Your task to perform on an android device: open chrome and create a bookmark for the current page Image 0: 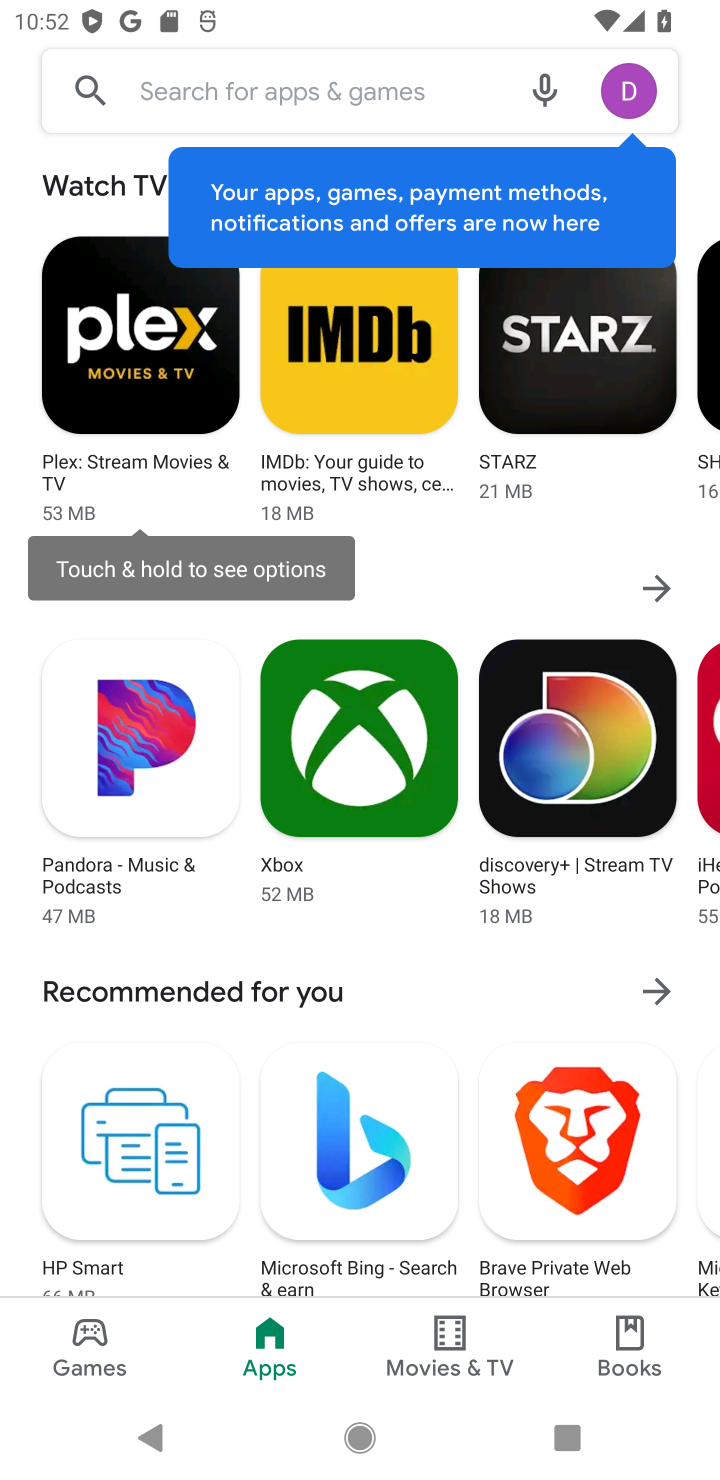
Step 0: press home button
Your task to perform on an android device: open chrome and create a bookmark for the current page Image 1: 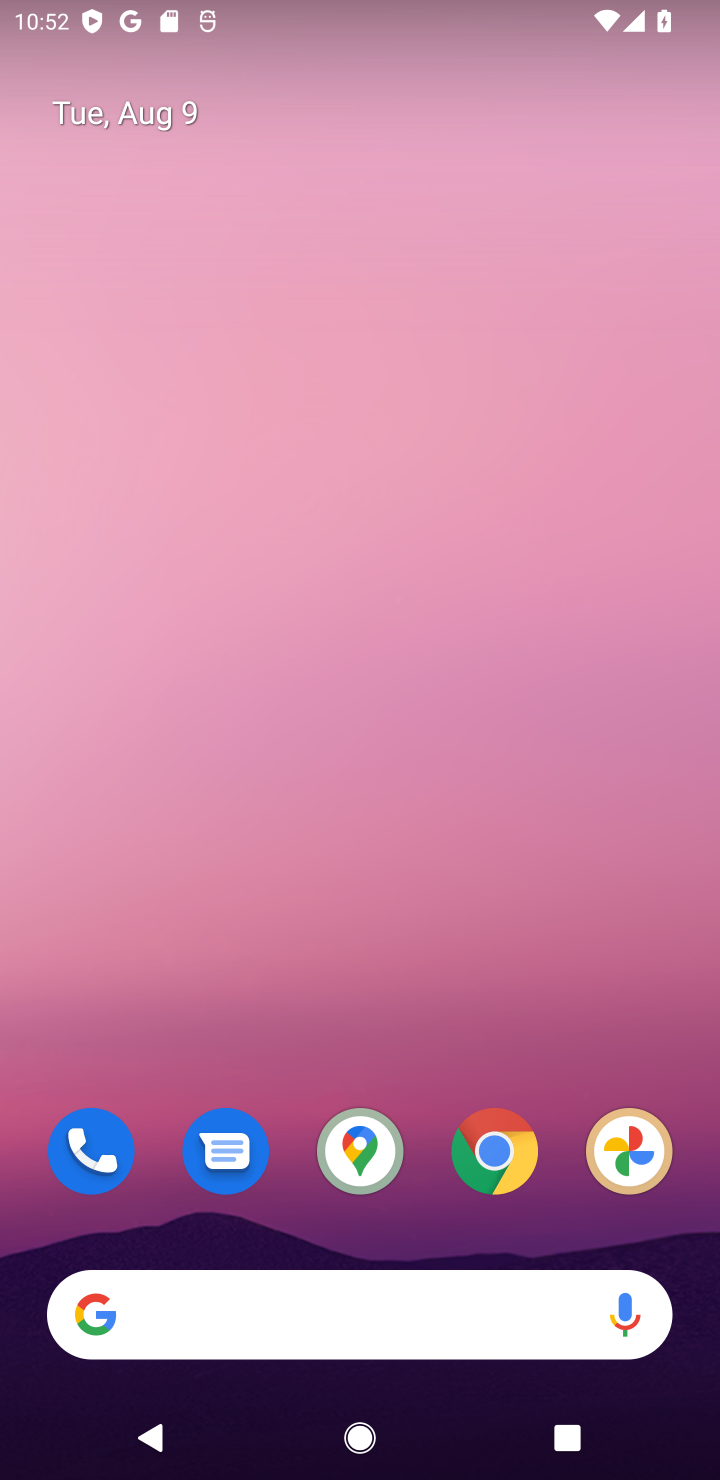
Step 1: click (433, 1156)
Your task to perform on an android device: open chrome and create a bookmark for the current page Image 2: 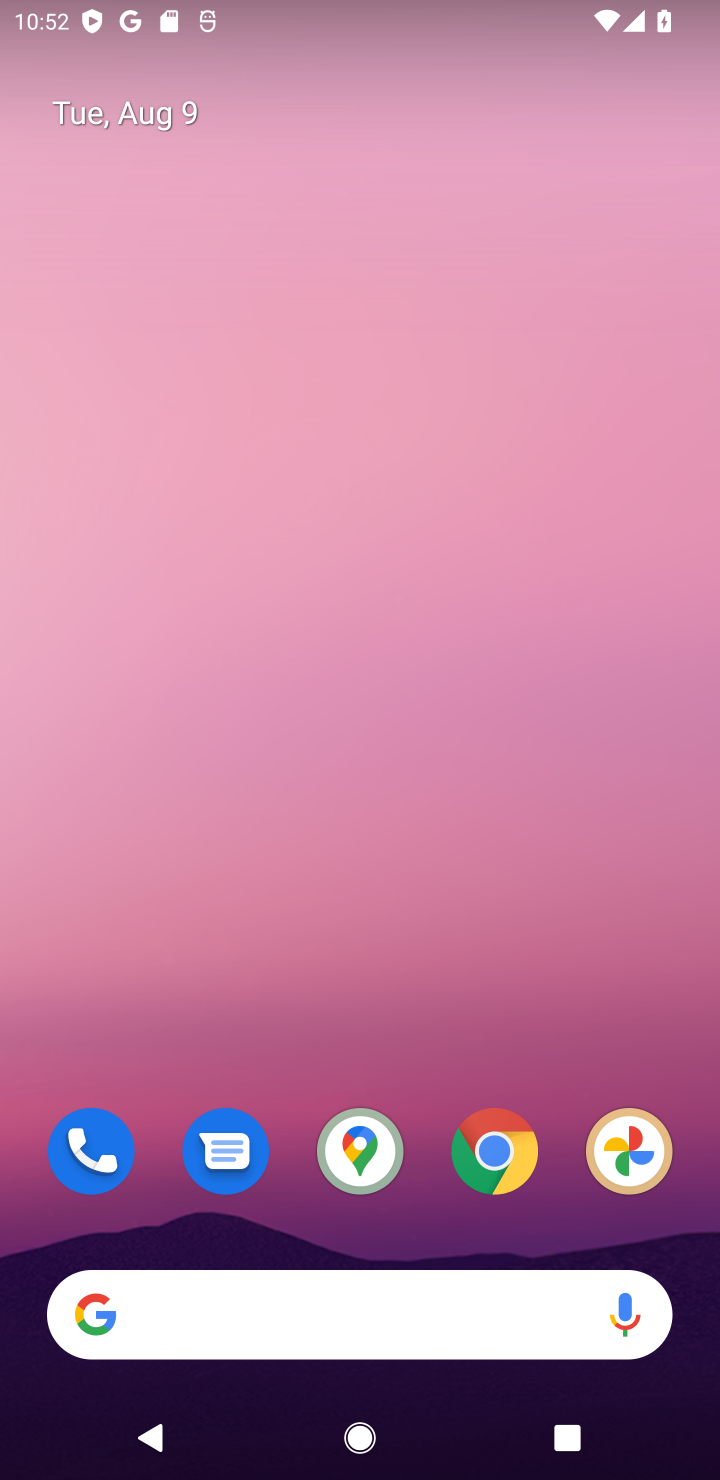
Step 2: click (495, 1157)
Your task to perform on an android device: open chrome and create a bookmark for the current page Image 3: 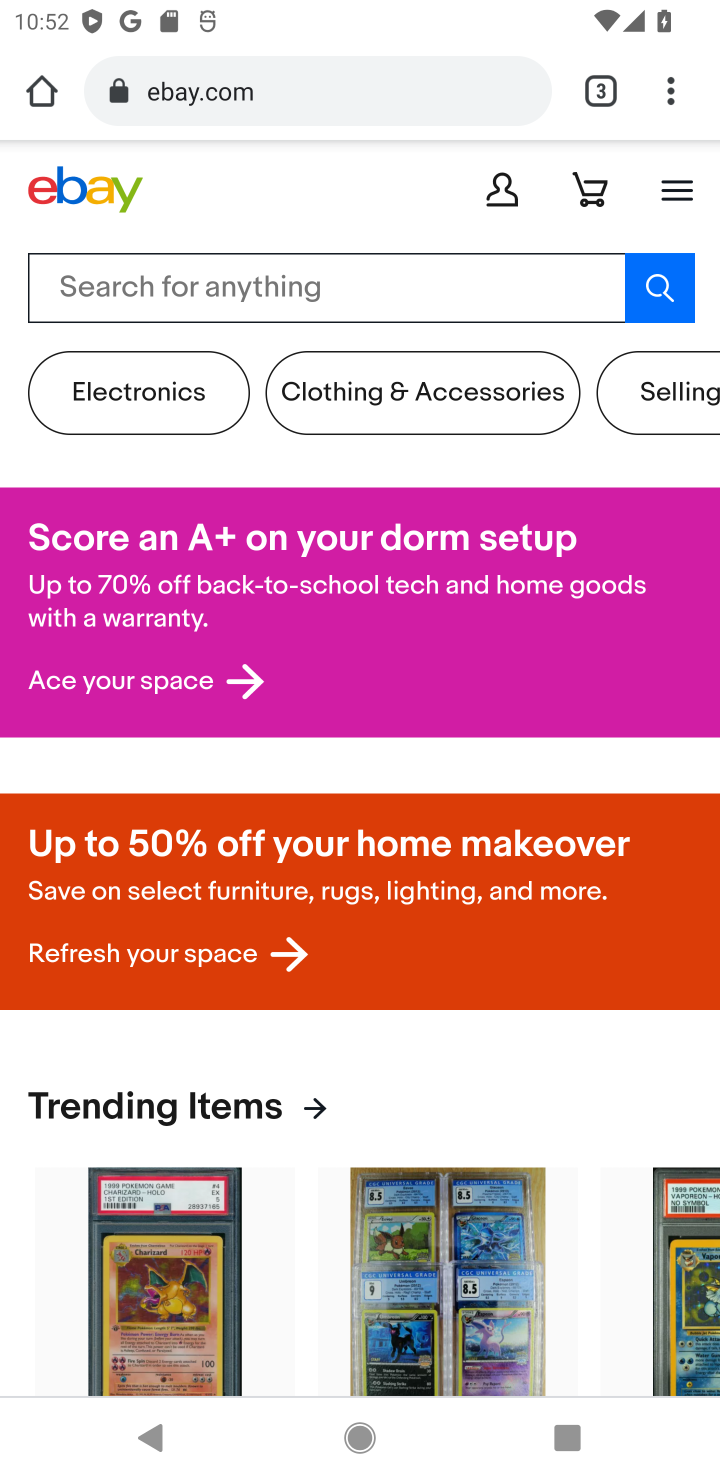
Step 3: click (681, 105)
Your task to perform on an android device: open chrome and create a bookmark for the current page Image 4: 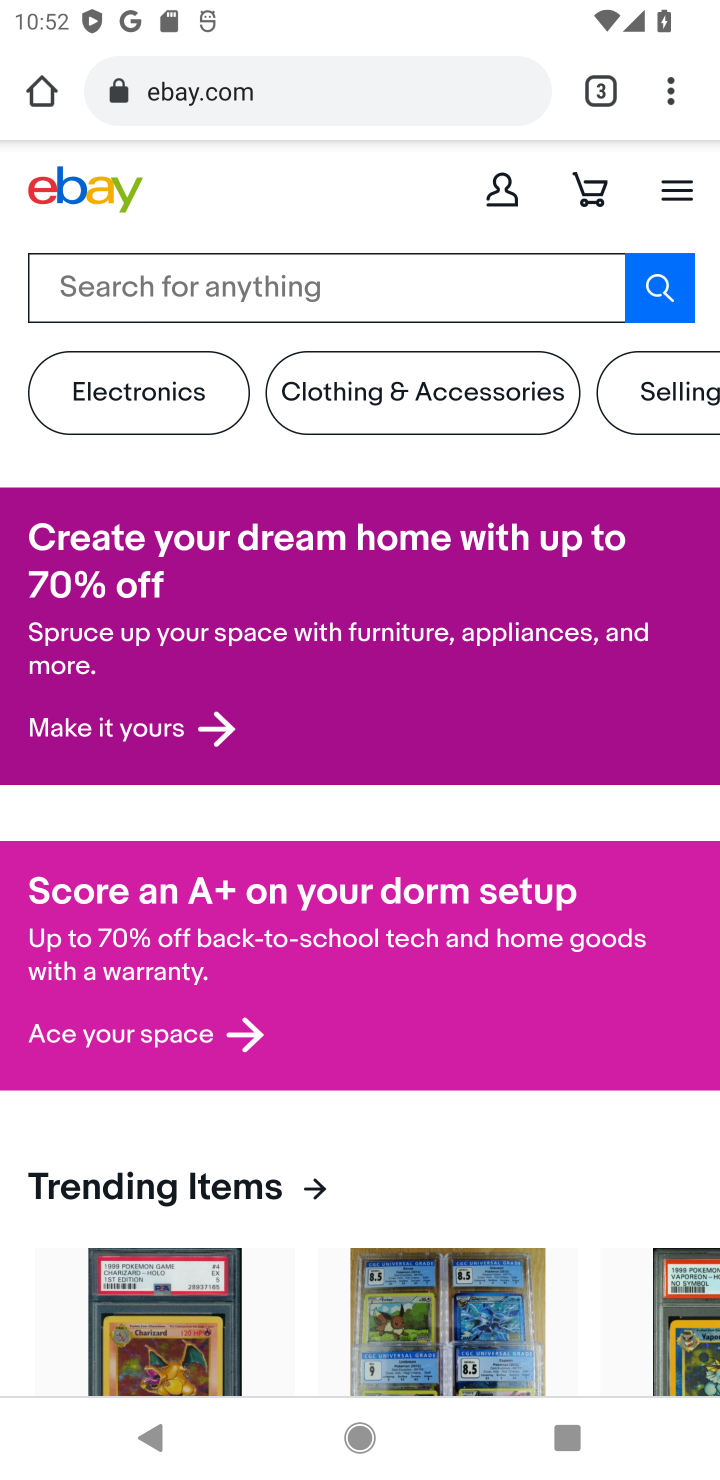
Step 4: click (670, 94)
Your task to perform on an android device: open chrome and create a bookmark for the current page Image 5: 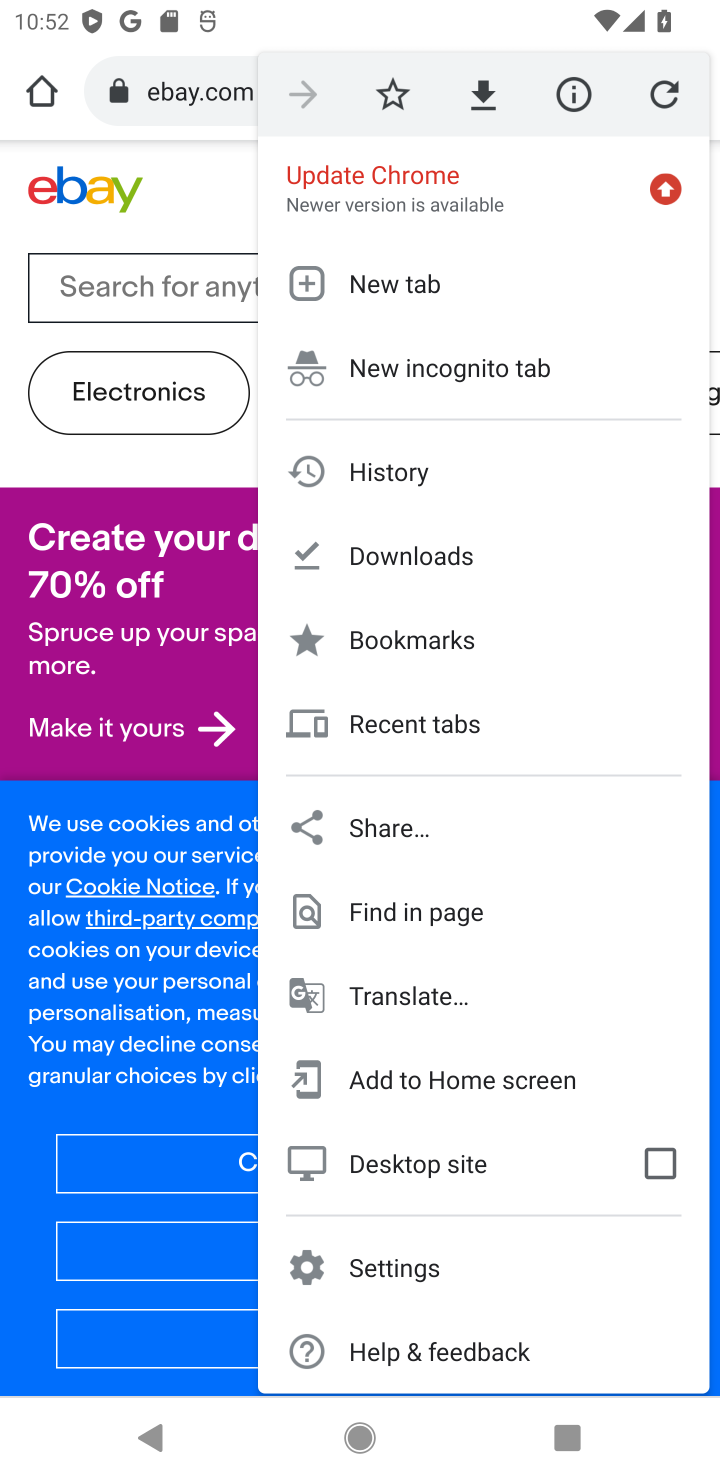
Step 5: click (411, 639)
Your task to perform on an android device: open chrome and create a bookmark for the current page Image 6: 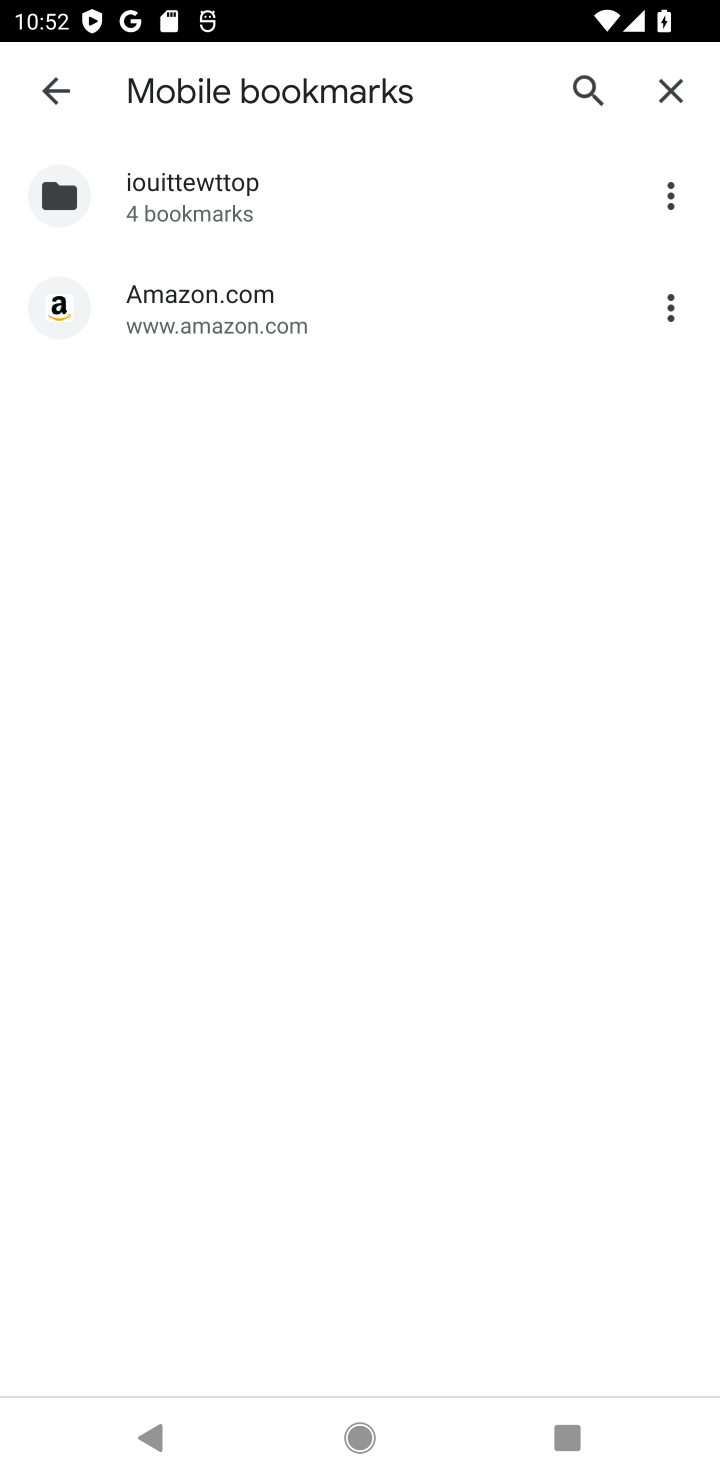
Step 6: click (66, 99)
Your task to perform on an android device: open chrome and create a bookmark for the current page Image 7: 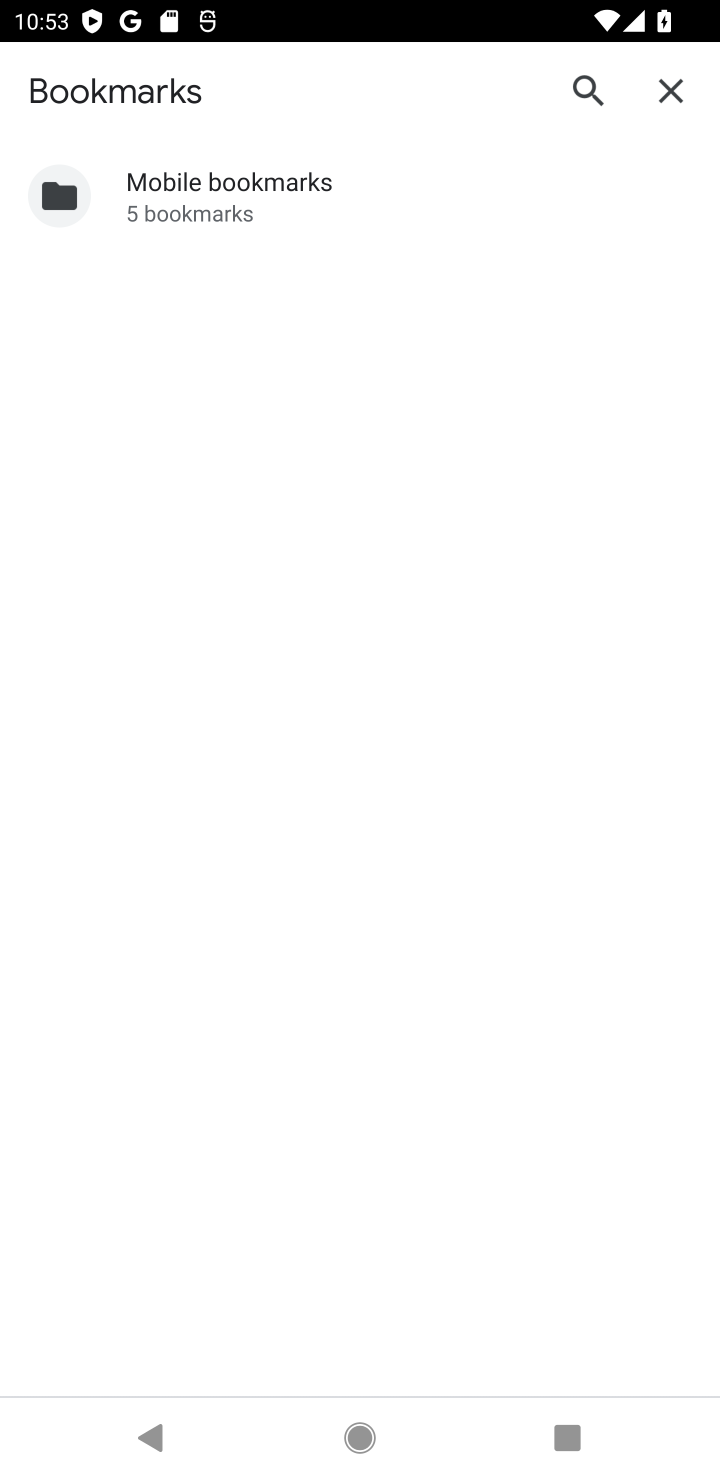
Step 7: click (670, 89)
Your task to perform on an android device: open chrome and create a bookmark for the current page Image 8: 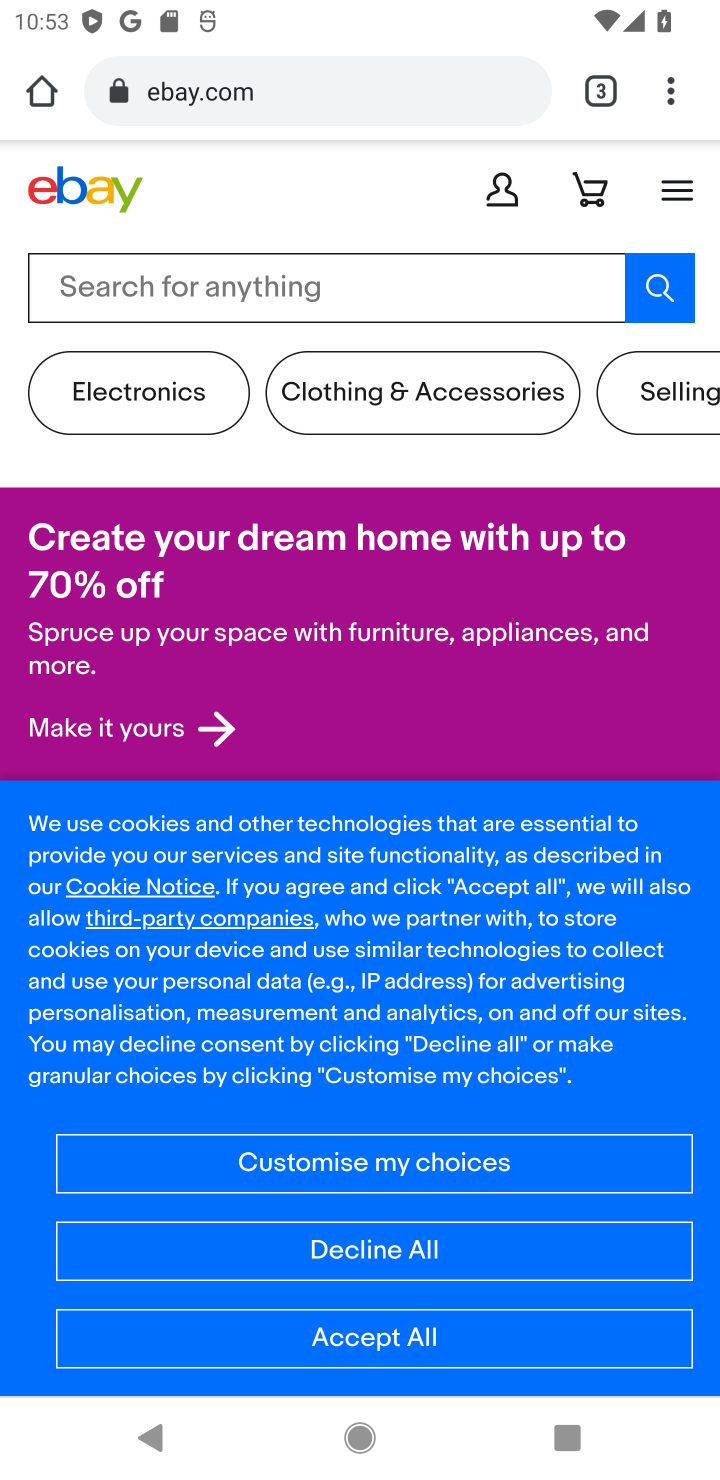
Step 8: click (268, 114)
Your task to perform on an android device: open chrome and create a bookmark for the current page Image 9: 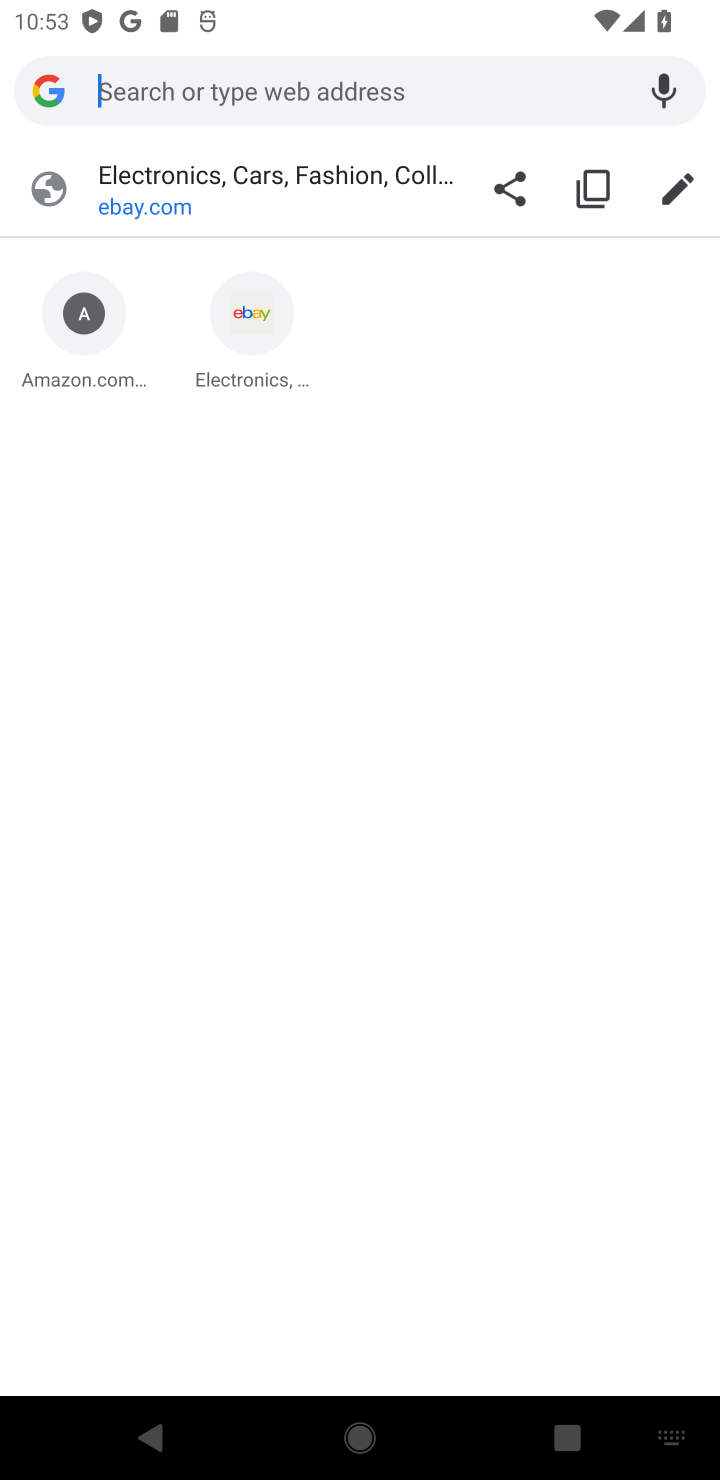
Step 9: type "gmail"
Your task to perform on an android device: open chrome and create a bookmark for the current page Image 10: 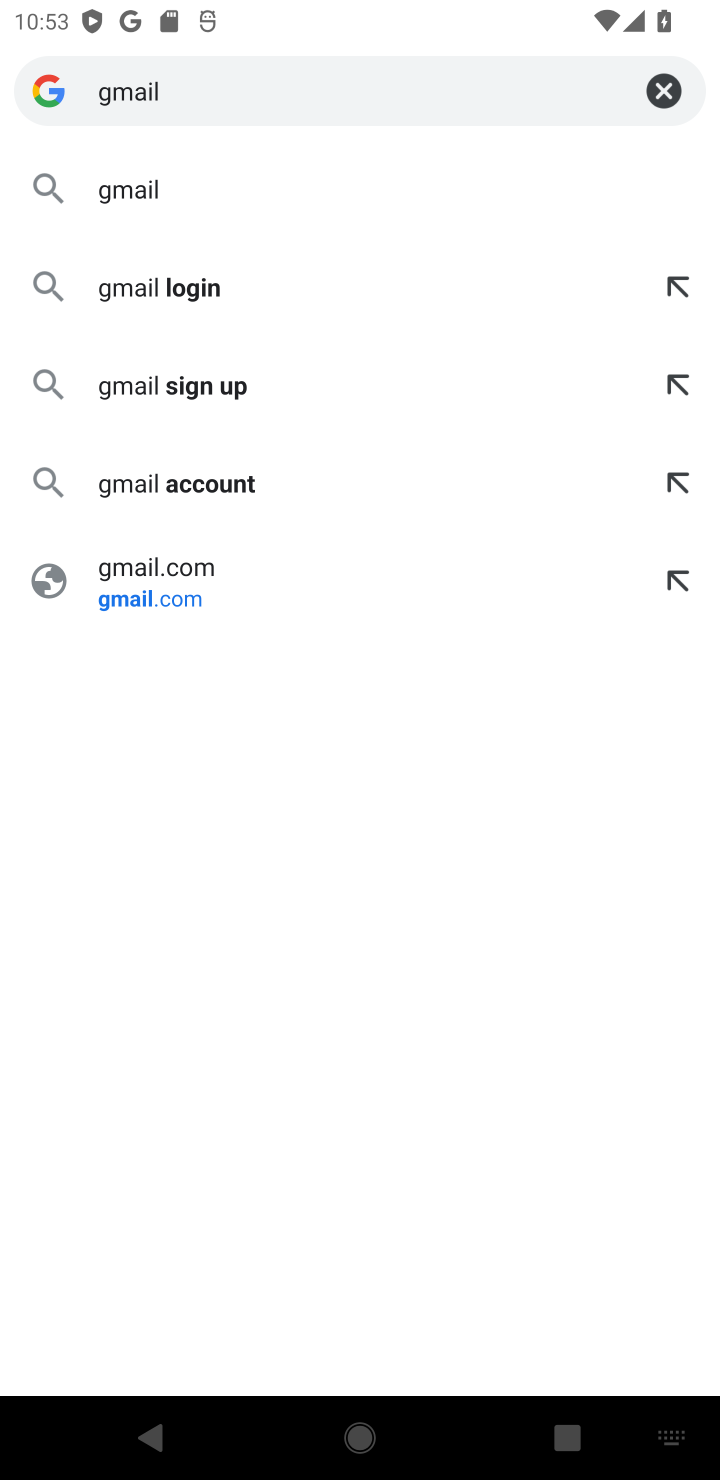
Step 10: click (243, 215)
Your task to perform on an android device: open chrome and create a bookmark for the current page Image 11: 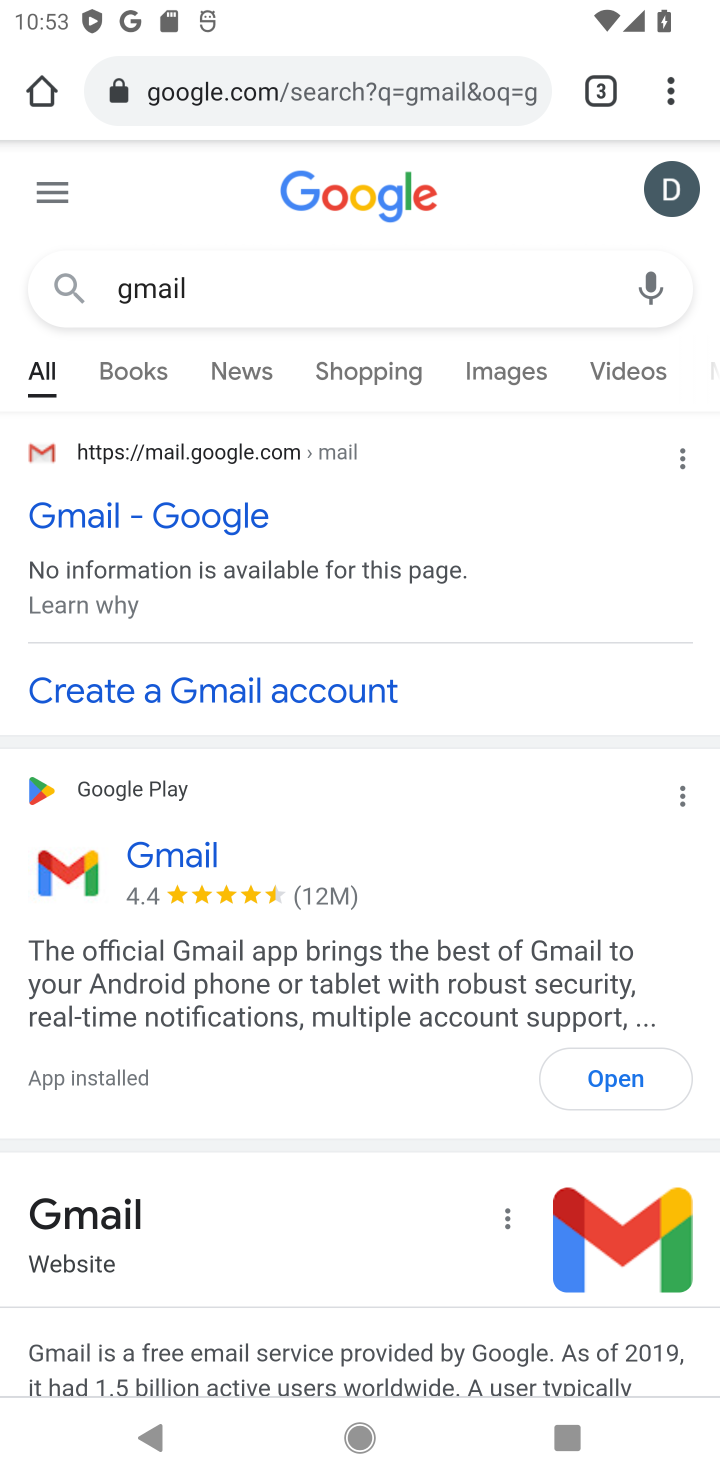
Step 11: click (95, 515)
Your task to perform on an android device: open chrome and create a bookmark for the current page Image 12: 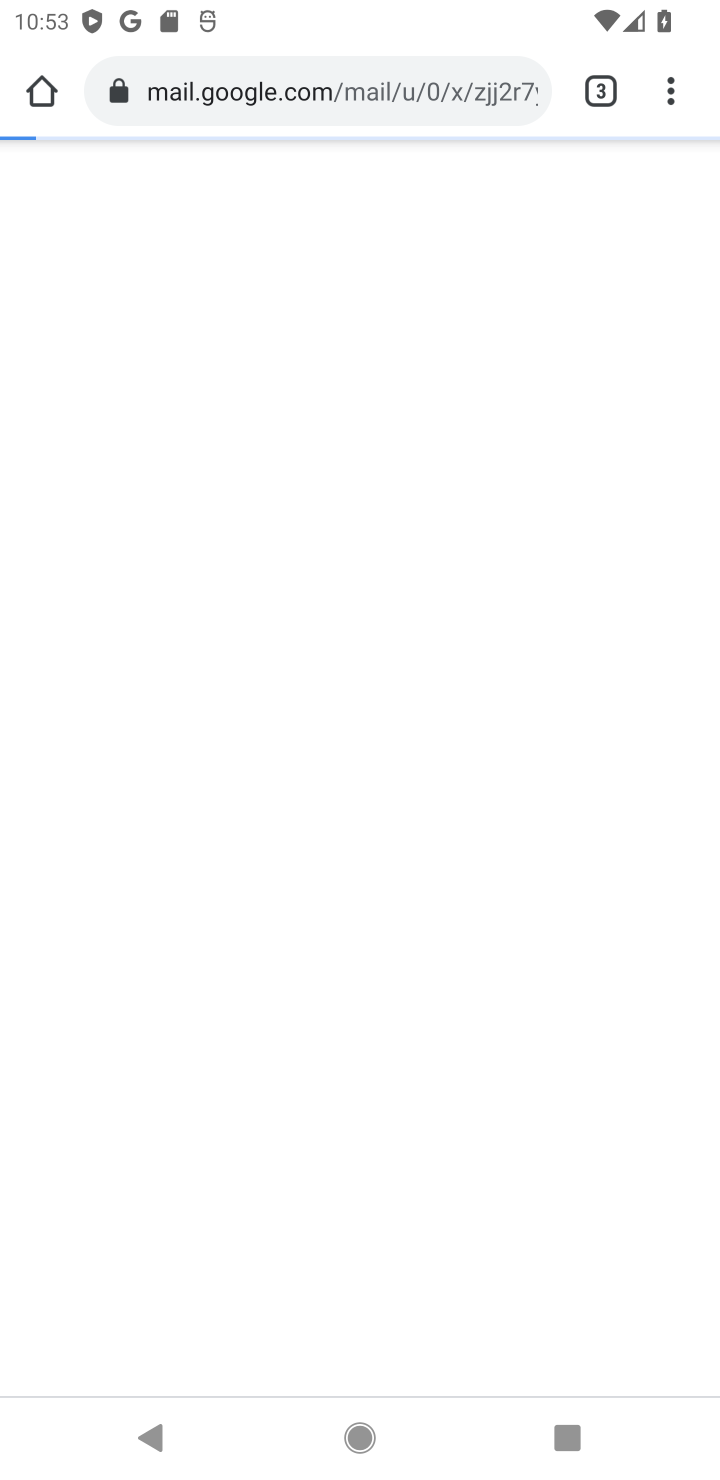
Step 12: click (666, 90)
Your task to perform on an android device: open chrome and create a bookmark for the current page Image 13: 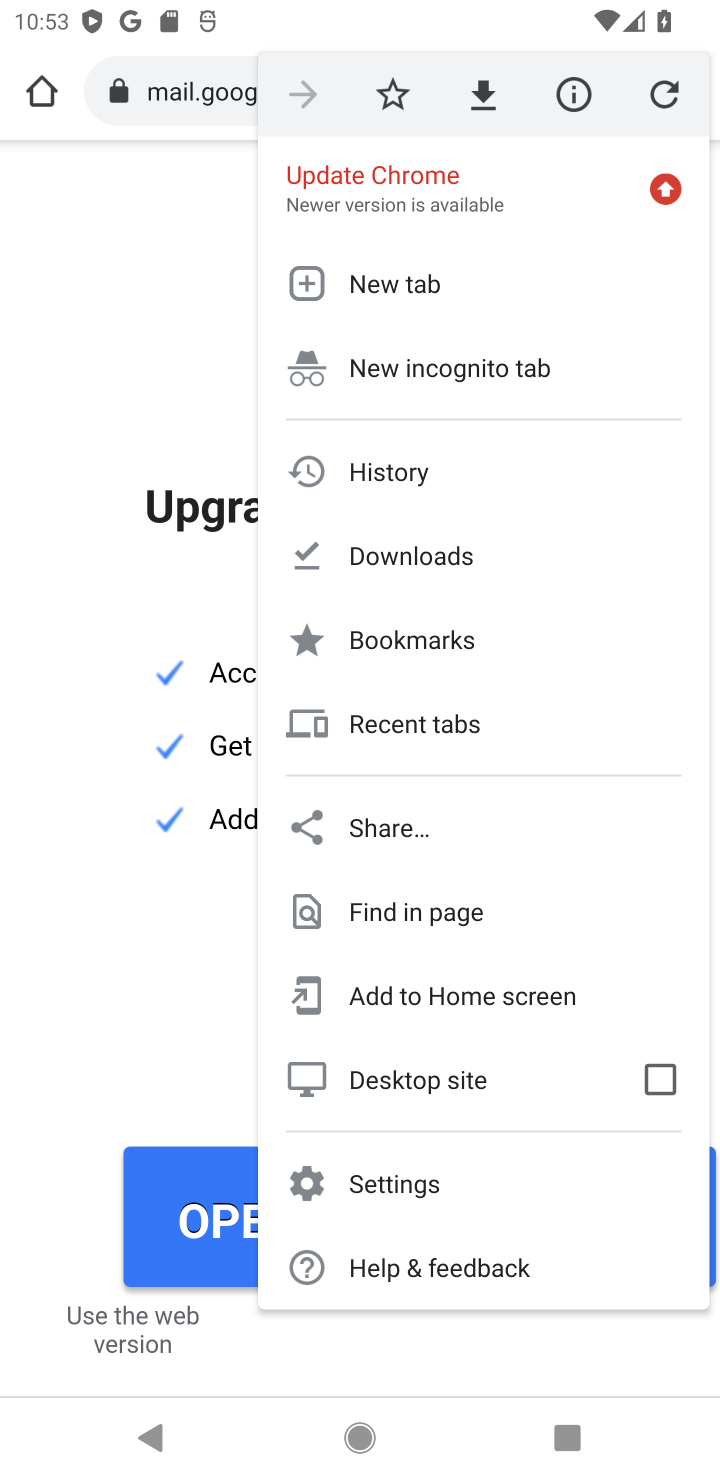
Step 13: click (379, 95)
Your task to perform on an android device: open chrome and create a bookmark for the current page Image 14: 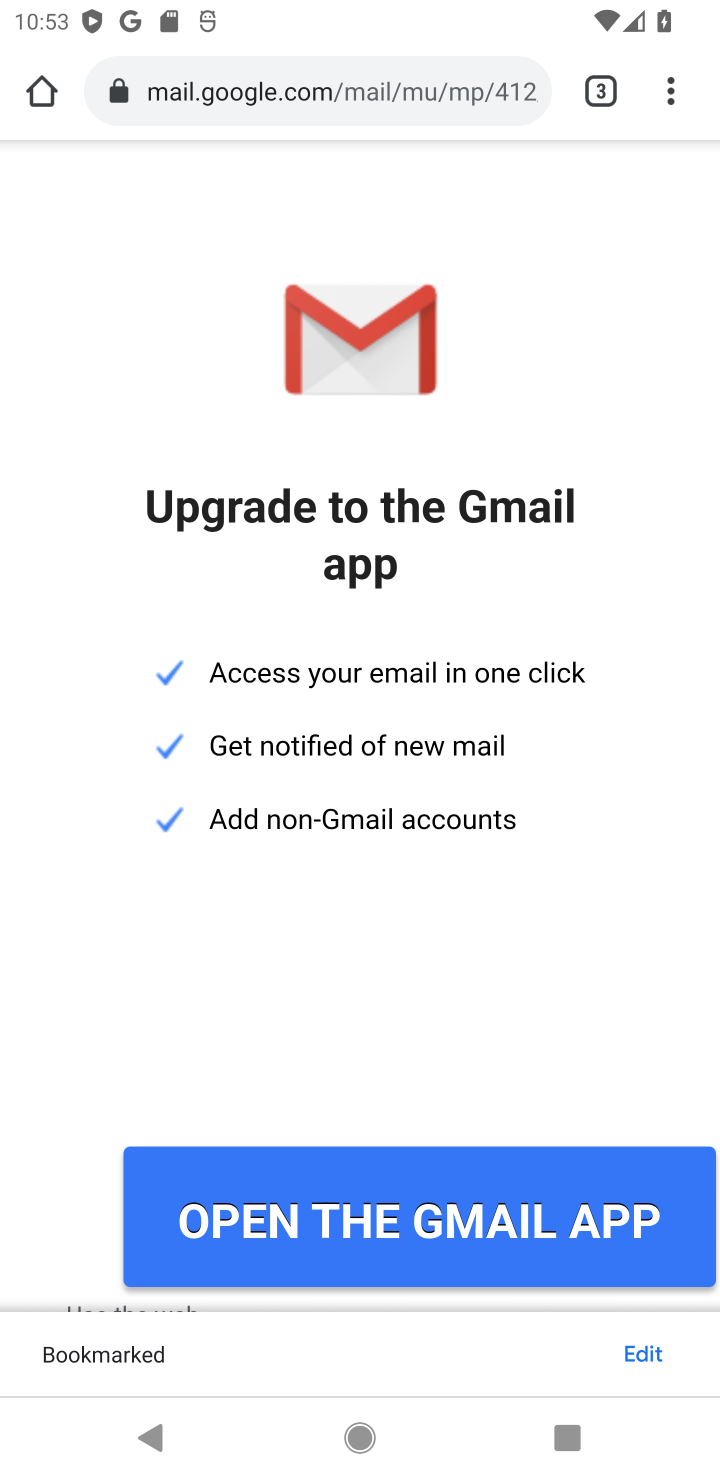
Step 14: click (655, 96)
Your task to perform on an android device: open chrome and create a bookmark for the current page Image 15: 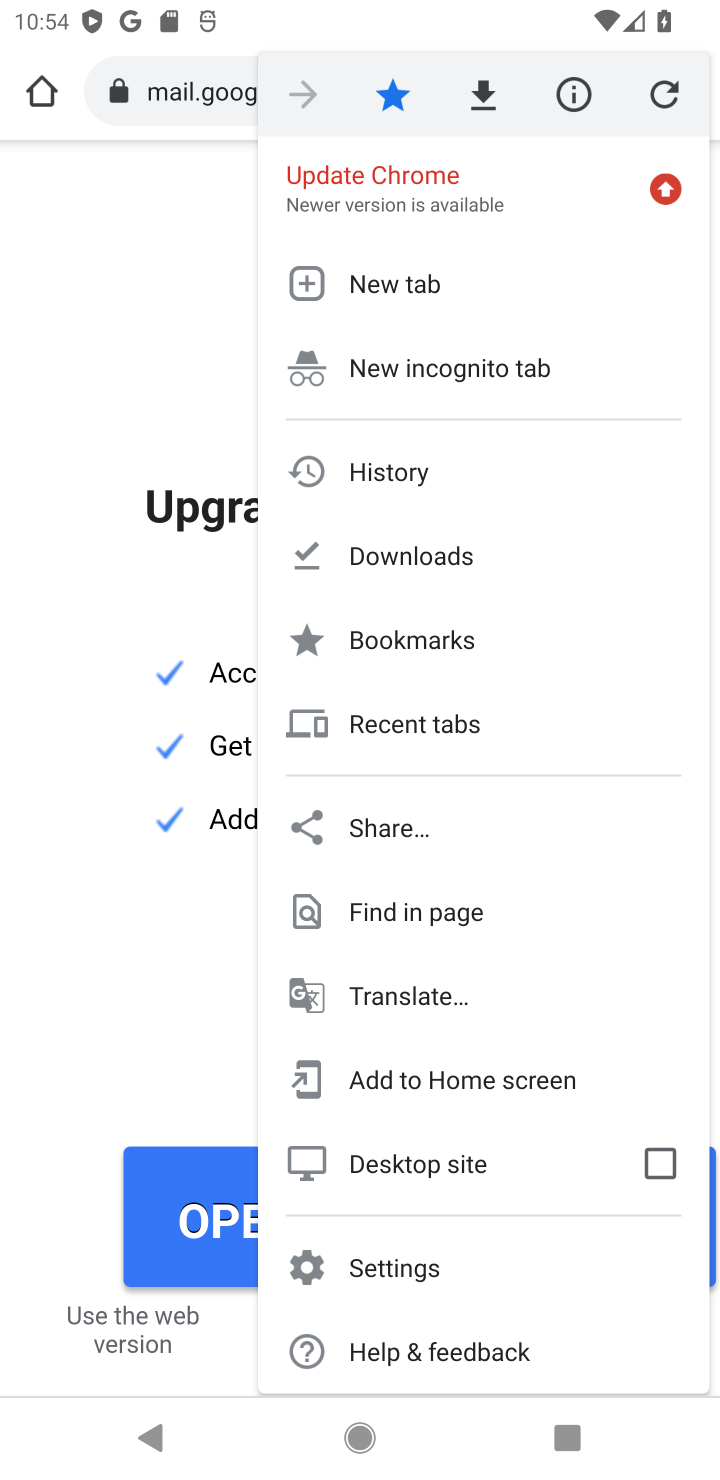
Step 15: task complete